Your task to perform on an android device: change notifications settings Image 0: 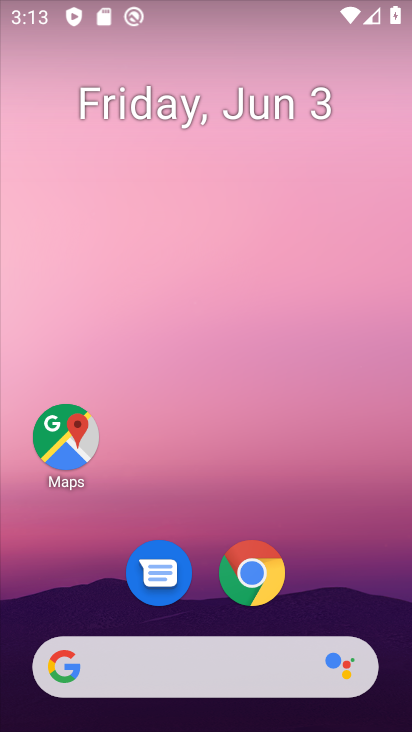
Step 0: drag from (395, 708) to (368, 137)
Your task to perform on an android device: change notifications settings Image 1: 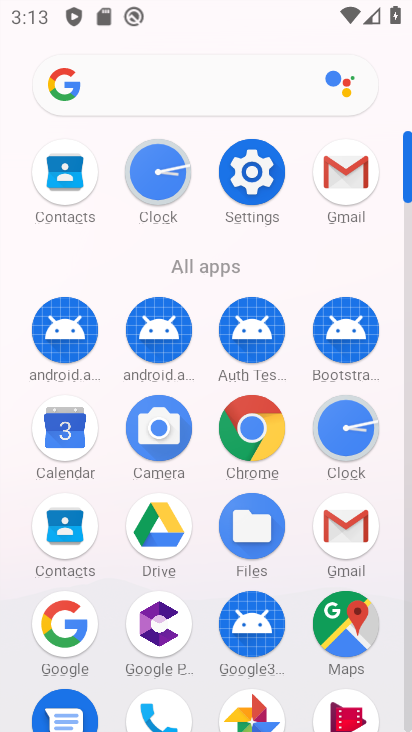
Step 1: click (234, 175)
Your task to perform on an android device: change notifications settings Image 2: 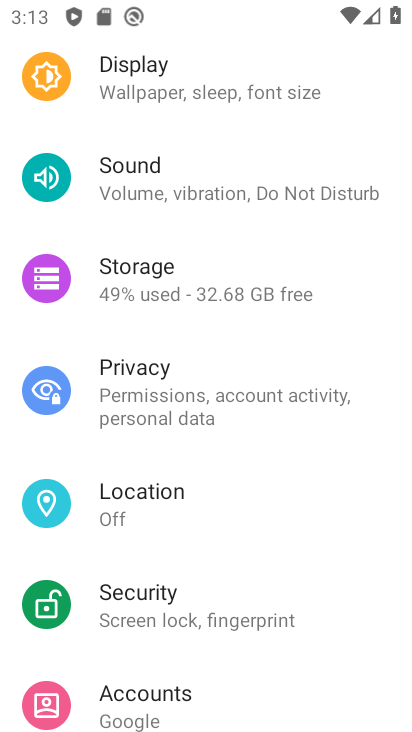
Step 2: drag from (273, 74) to (271, 636)
Your task to perform on an android device: change notifications settings Image 3: 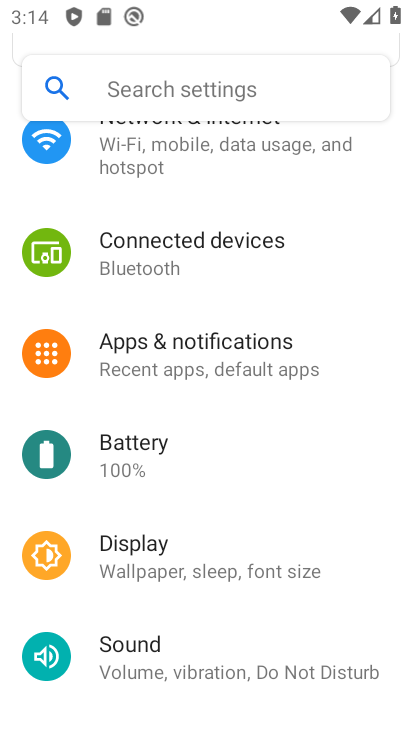
Step 3: click (168, 345)
Your task to perform on an android device: change notifications settings Image 4: 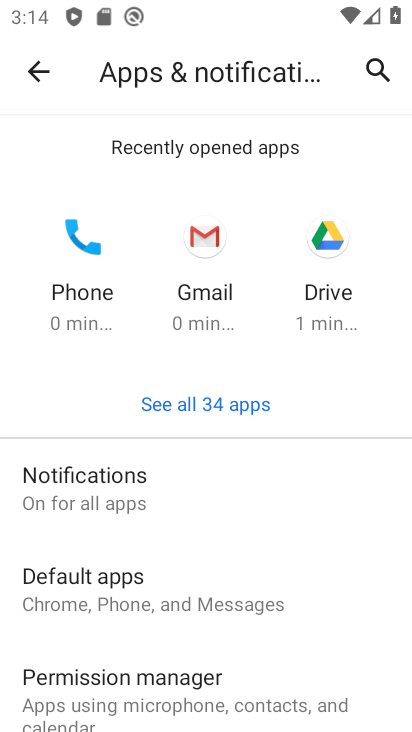
Step 4: click (99, 514)
Your task to perform on an android device: change notifications settings Image 5: 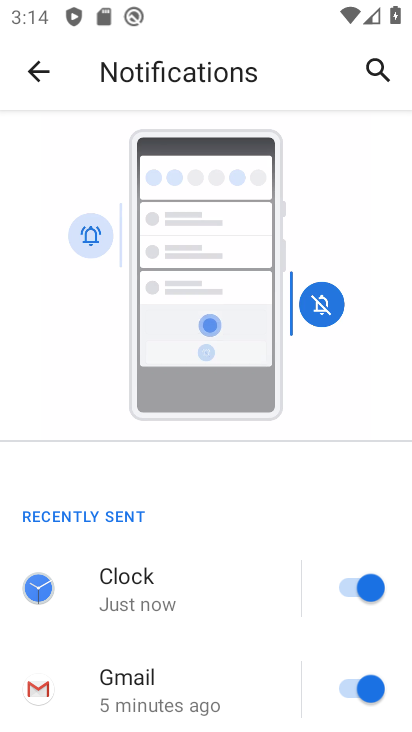
Step 5: drag from (258, 679) to (260, 313)
Your task to perform on an android device: change notifications settings Image 6: 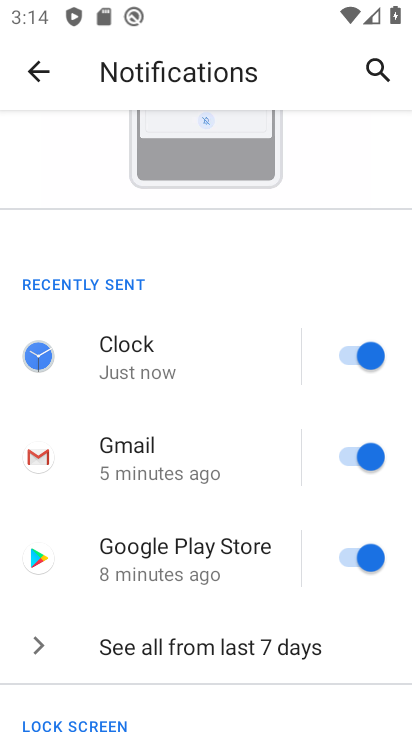
Step 6: click (237, 370)
Your task to perform on an android device: change notifications settings Image 7: 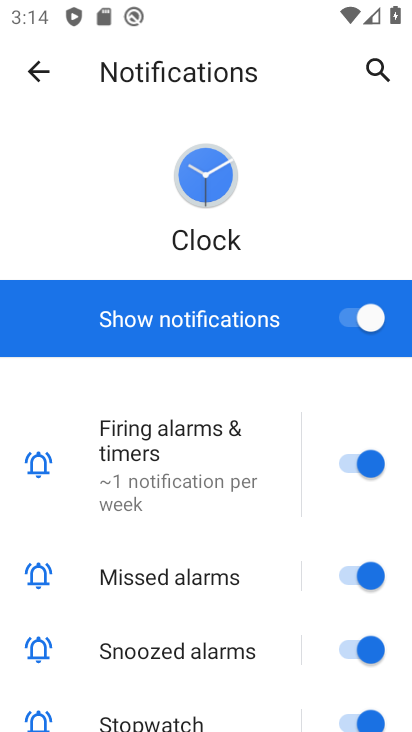
Step 7: click (24, 74)
Your task to perform on an android device: change notifications settings Image 8: 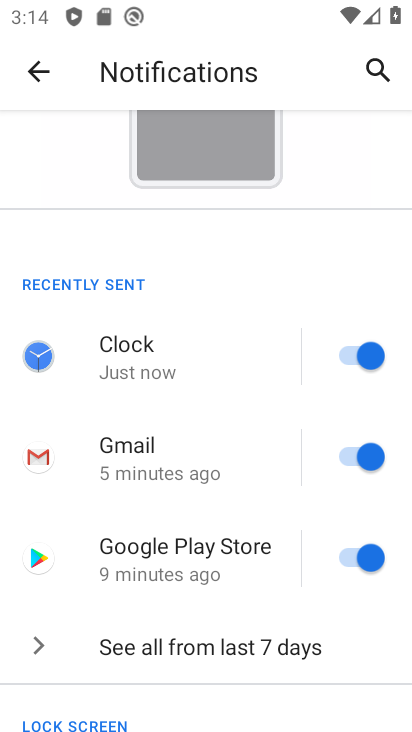
Step 8: drag from (202, 692) to (219, 375)
Your task to perform on an android device: change notifications settings Image 9: 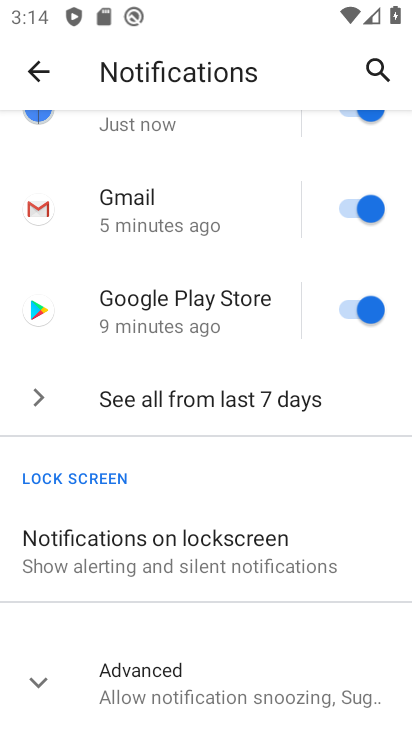
Step 9: click (38, 679)
Your task to perform on an android device: change notifications settings Image 10: 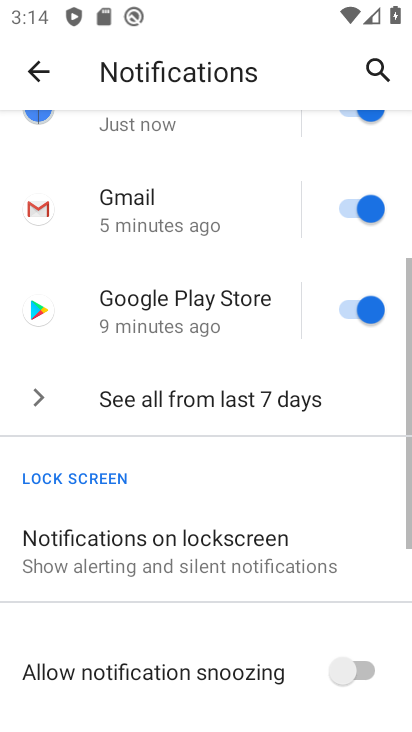
Step 10: task complete